Your task to perform on an android device: install app "Life360: Find Family & Friends" Image 0: 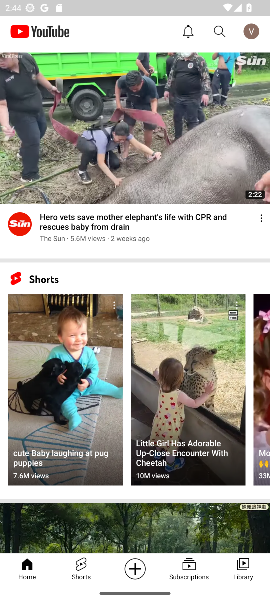
Step 0: press home button
Your task to perform on an android device: install app "Life360: Find Family & Friends" Image 1: 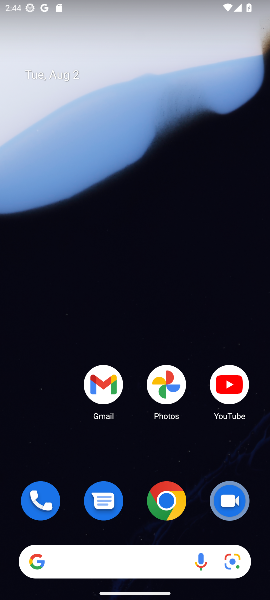
Step 1: drag from (143, 426) to (116, 68)
Your task to perform on an android device: install app "Life360: Find Family & Friends" Image 2: 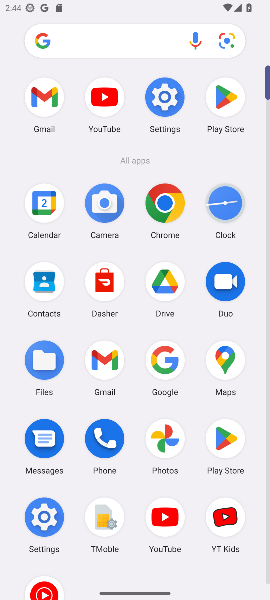
Step 2: click (222, 107)
Your task to perform on an android device: install app "Life360: Find Family & Friends" Image 3: 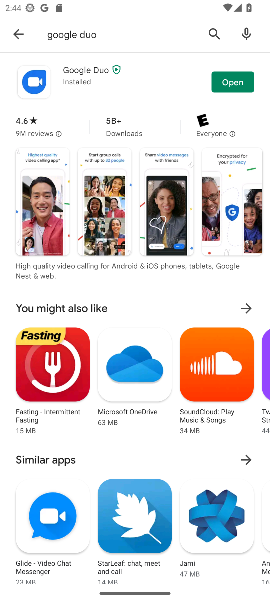
Step 3: click (211, 35)
Your task to perform on an android device: install app "Life360: Find Family & Friends" Image 4: 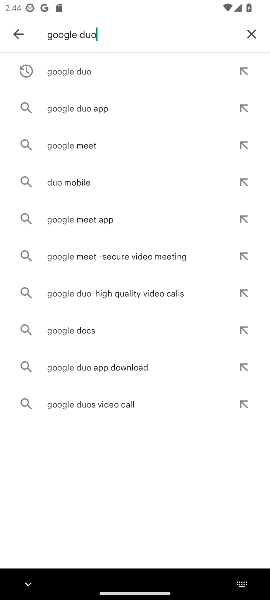
Step 4: click (252, 35)
Your task to perform on an android device: install app "Life360: Find Family & Friends" Image 5: 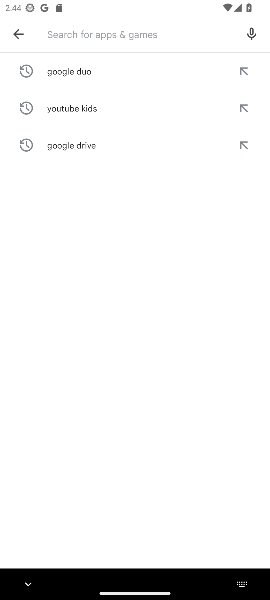
Step 5: type "Life360: Find Family & Friends"
Your task to perform on an android device: install app "Life360: Find Family & Friends" Image 6: 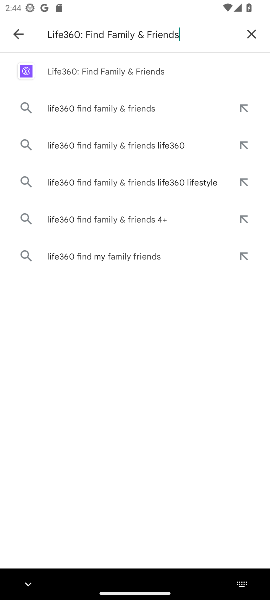
Step 6: click (80, 75)
Your task to perform on an android device: install app "Life360: Find Family & Friends" Image 7: 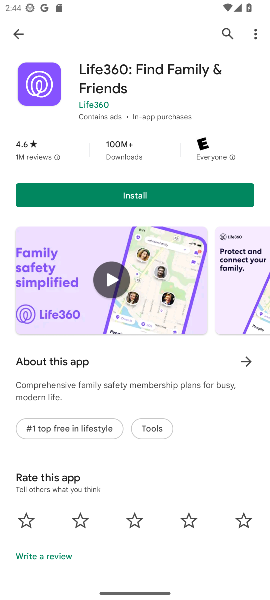
Step 7: click (118, 188)
Your task to perform on an android device: install app "Life360: Find Family & Friends" Image 8: 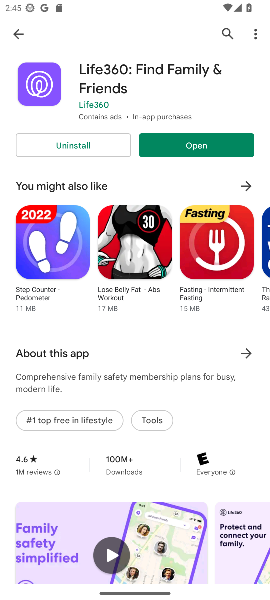
Step 8: task complete